Your task to perform on an android device: delete the emails in spam in the gmail app Image 0: 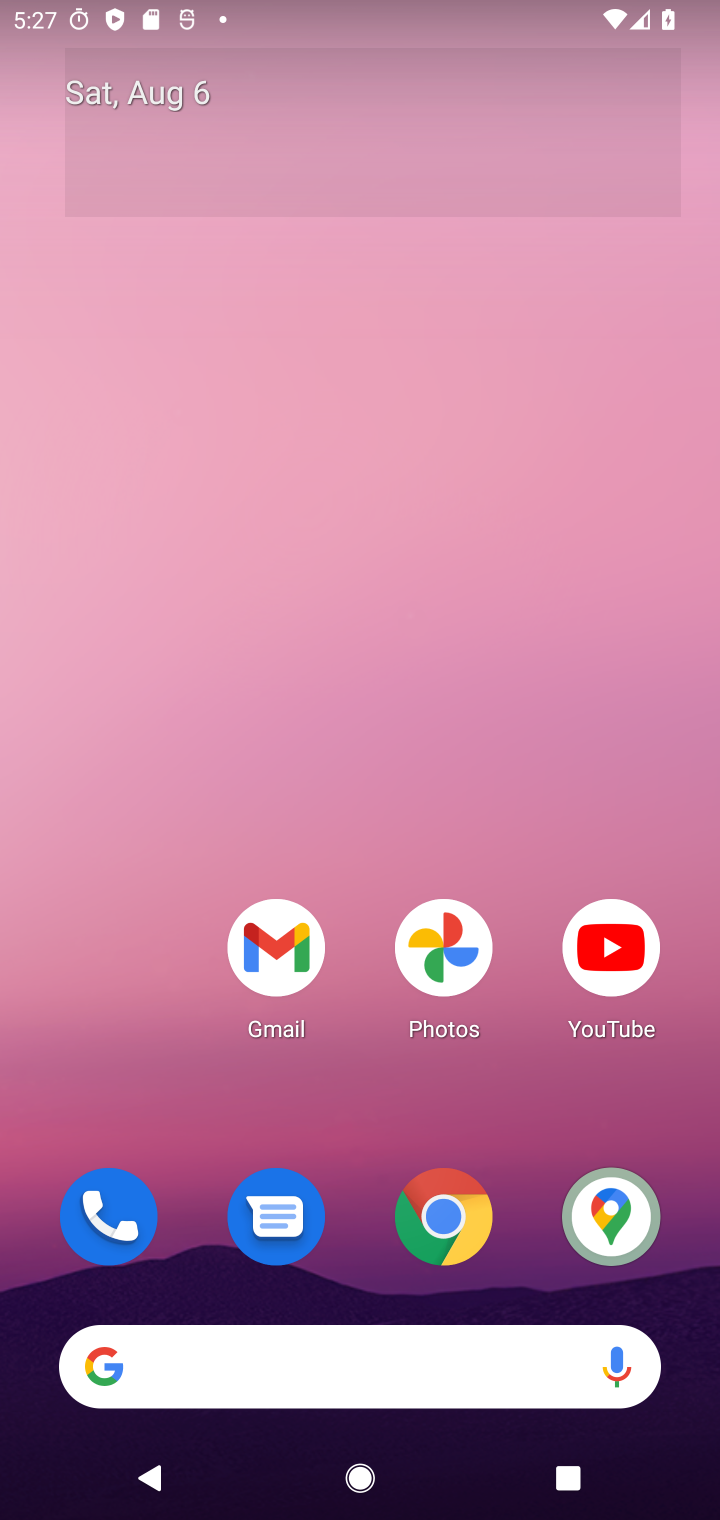
Step 0: press home button
Your task to perform on an android device: delete the emails in spam in the gmail app Image 1: 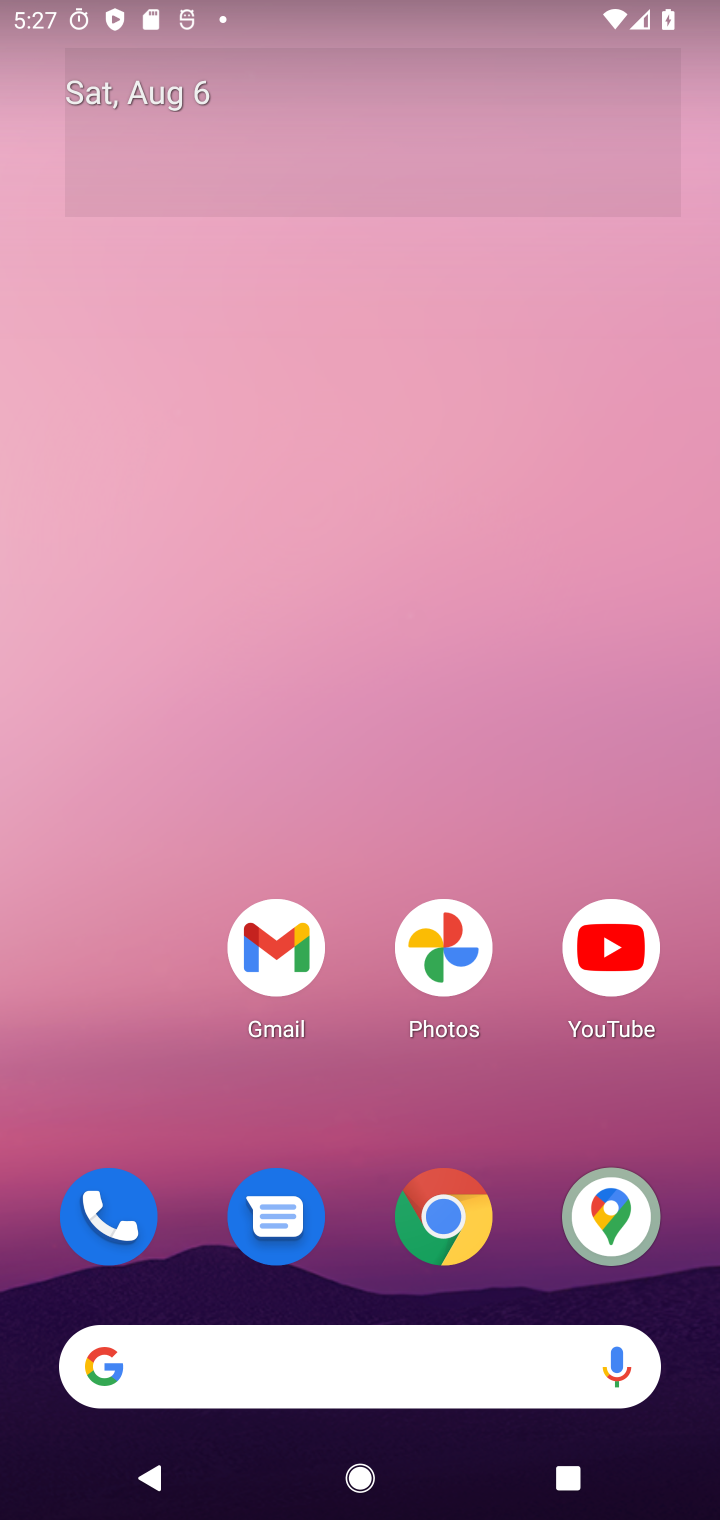
Step 1: click (507, 354)
Your task to perform on an android device: delete the emails in spam in the gmail app Image 2: 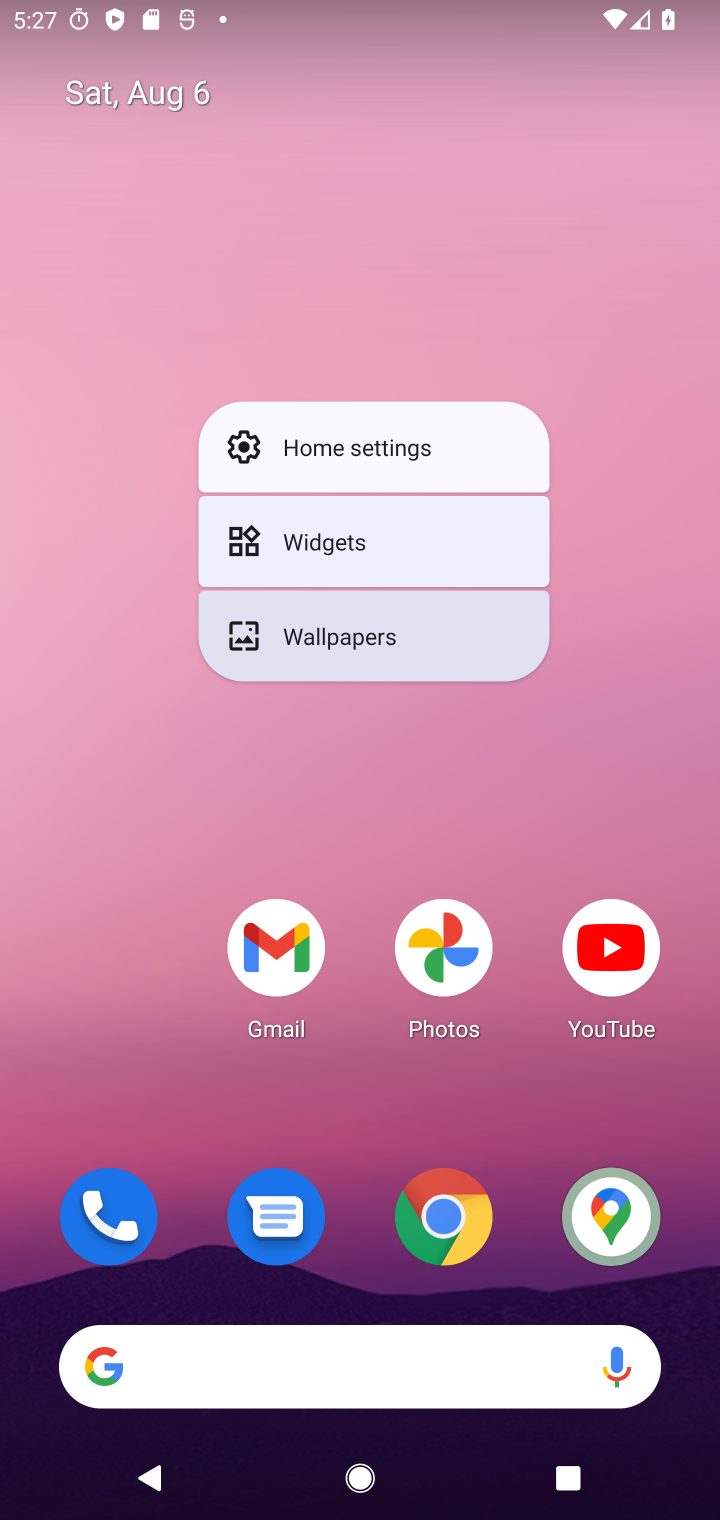
Step 2: click (625, 562)
Your task to perform on an android device: delete the emails in spam in the gmail app Image 3: 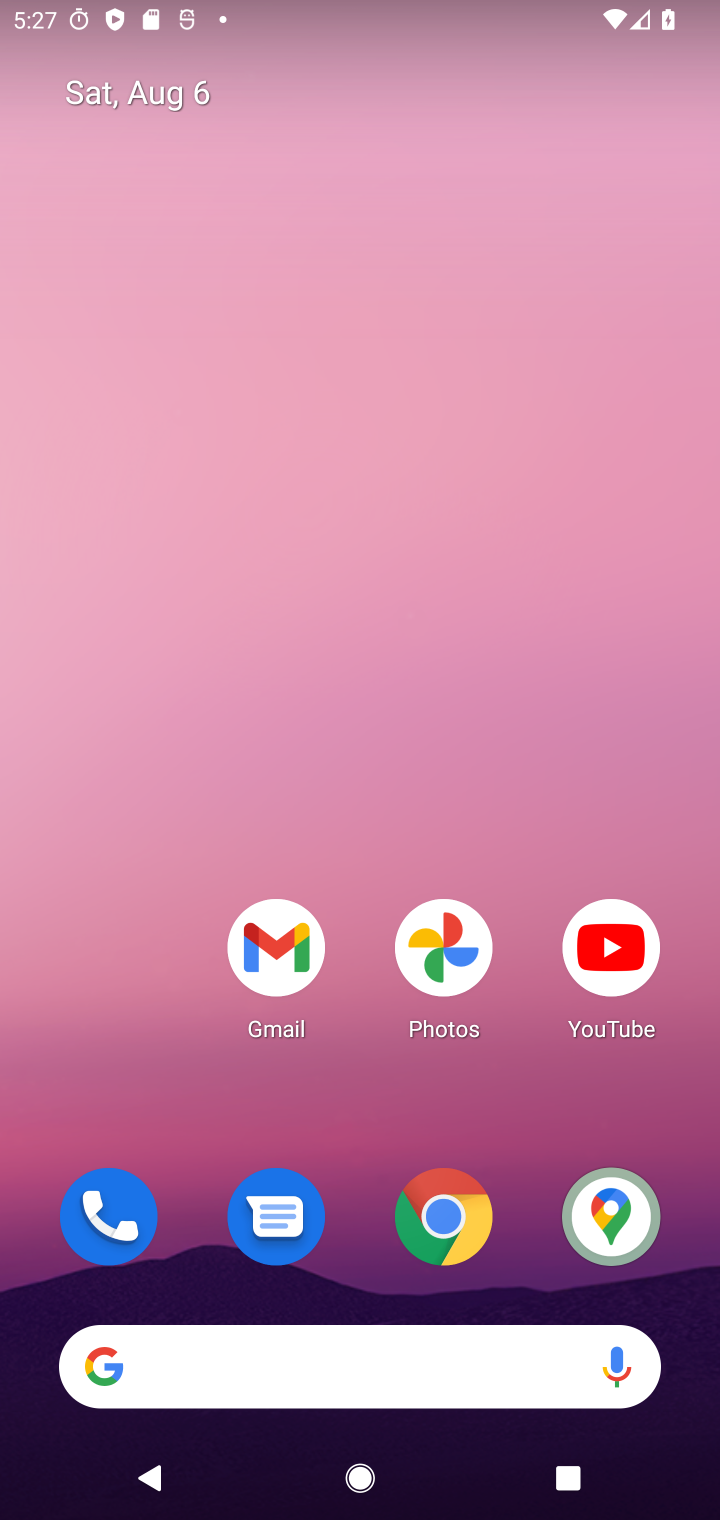
Step 3: drag from (363, 1276) to (402, 432)
Your task to perform on an android device: delete the emails in spam in the gmail app Image 4: 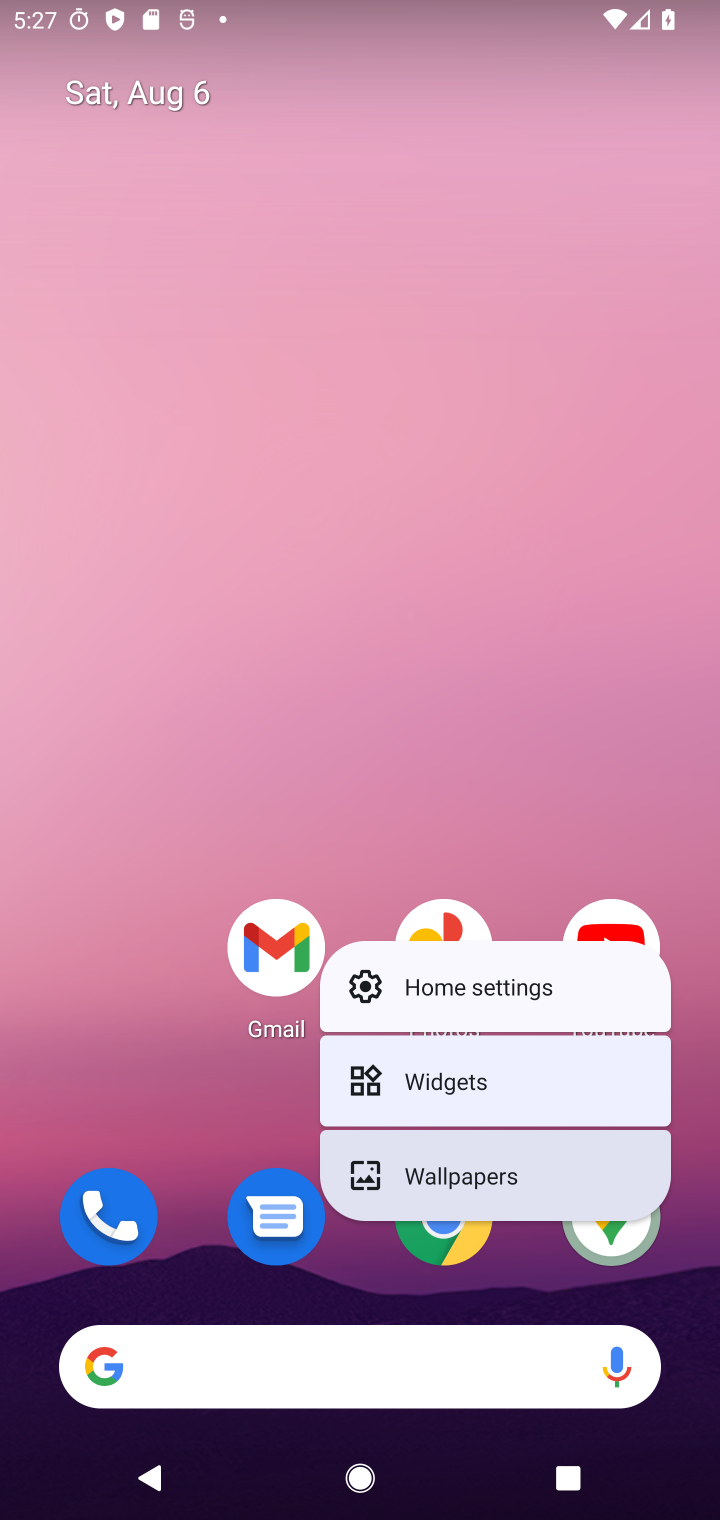
Step 4: click (420, 511)
Your task to perform on an android device: delete the emails in spam in the gmail app Image 5: 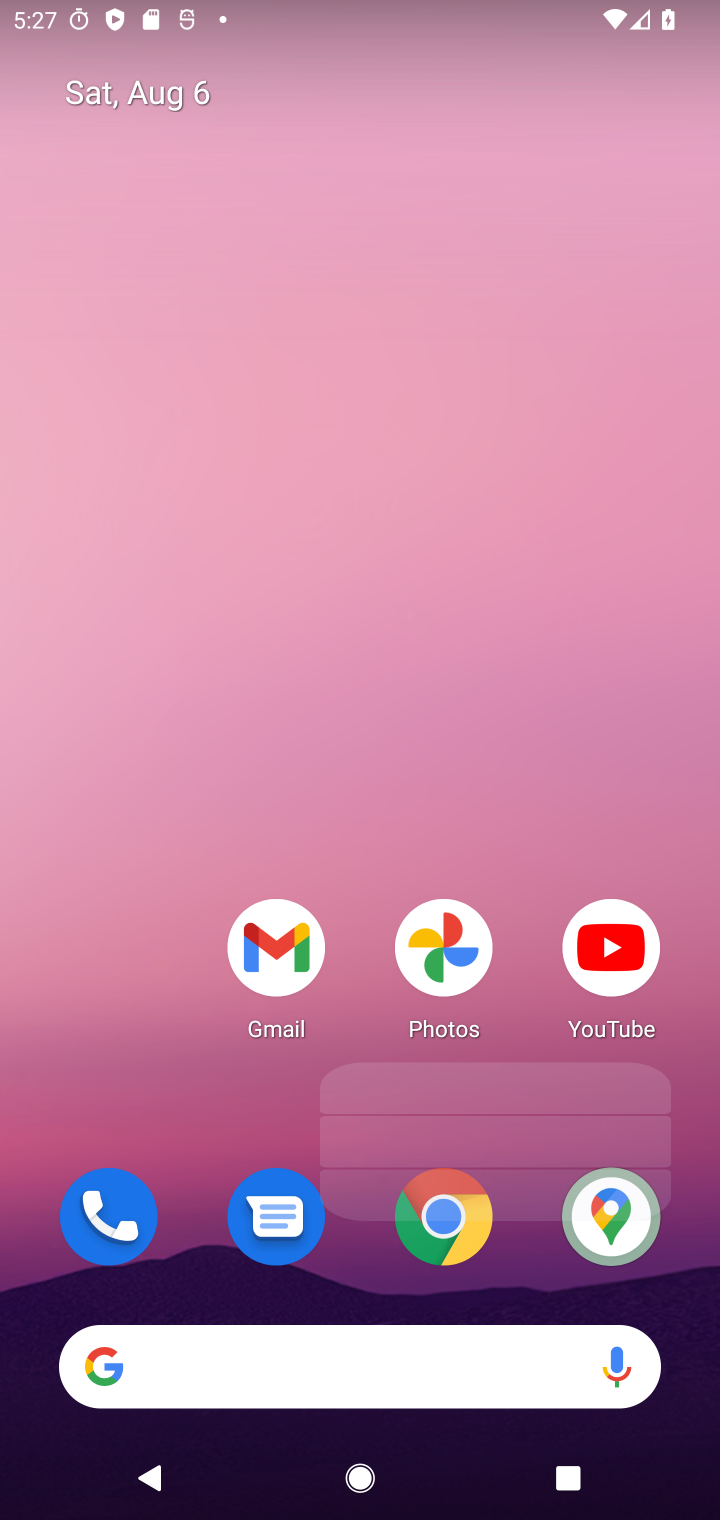
Step 5: click (157, 1041)
Your task to perform on an android device: delete the emails in spam in the gmail app Image 6: 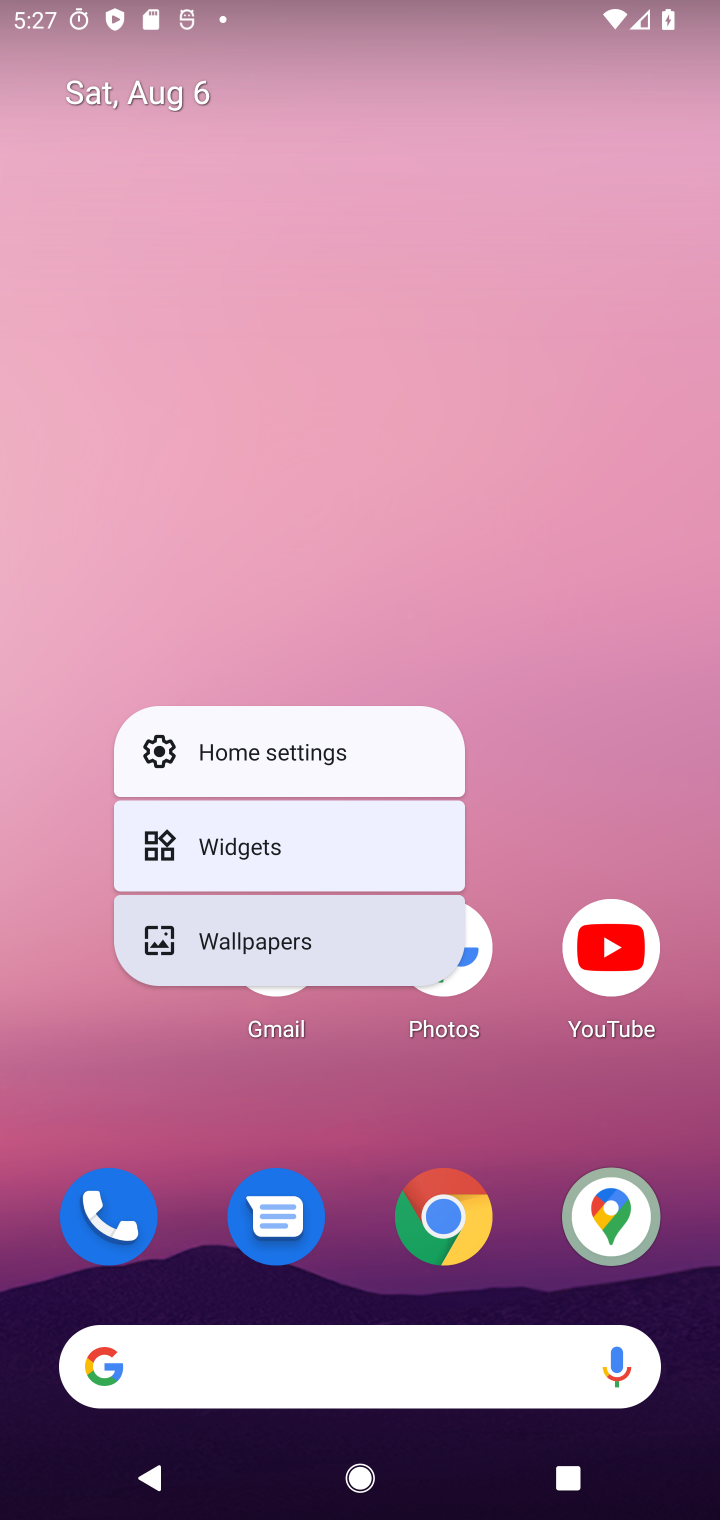
Step 6: drag from (359, 1281) to (412, 374)
Your task to perform on an android device: delete the emails in spam in the gmail app Image 7: 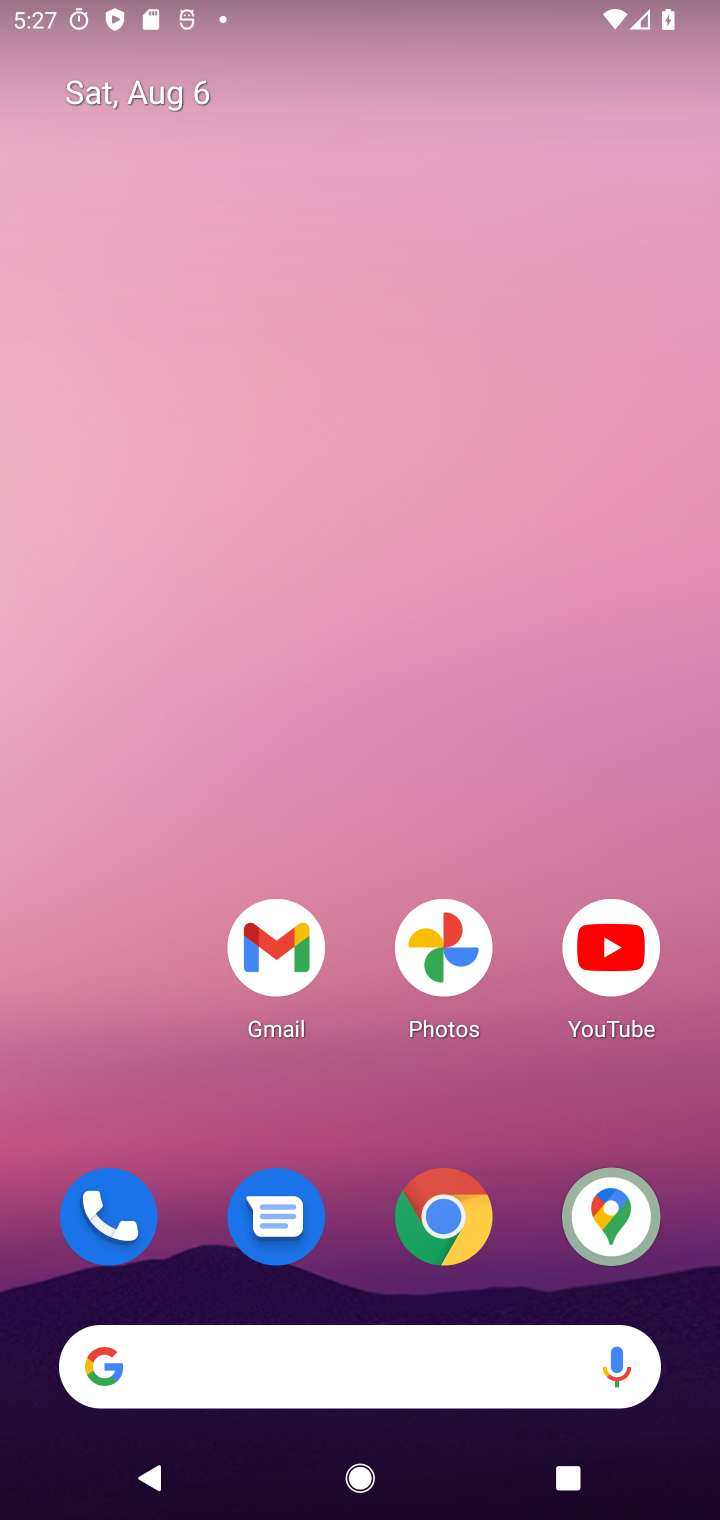
Step 7: click (425, 490)
Your task to perform on an android device: delete the emails in spam in the gmail app Image 8: 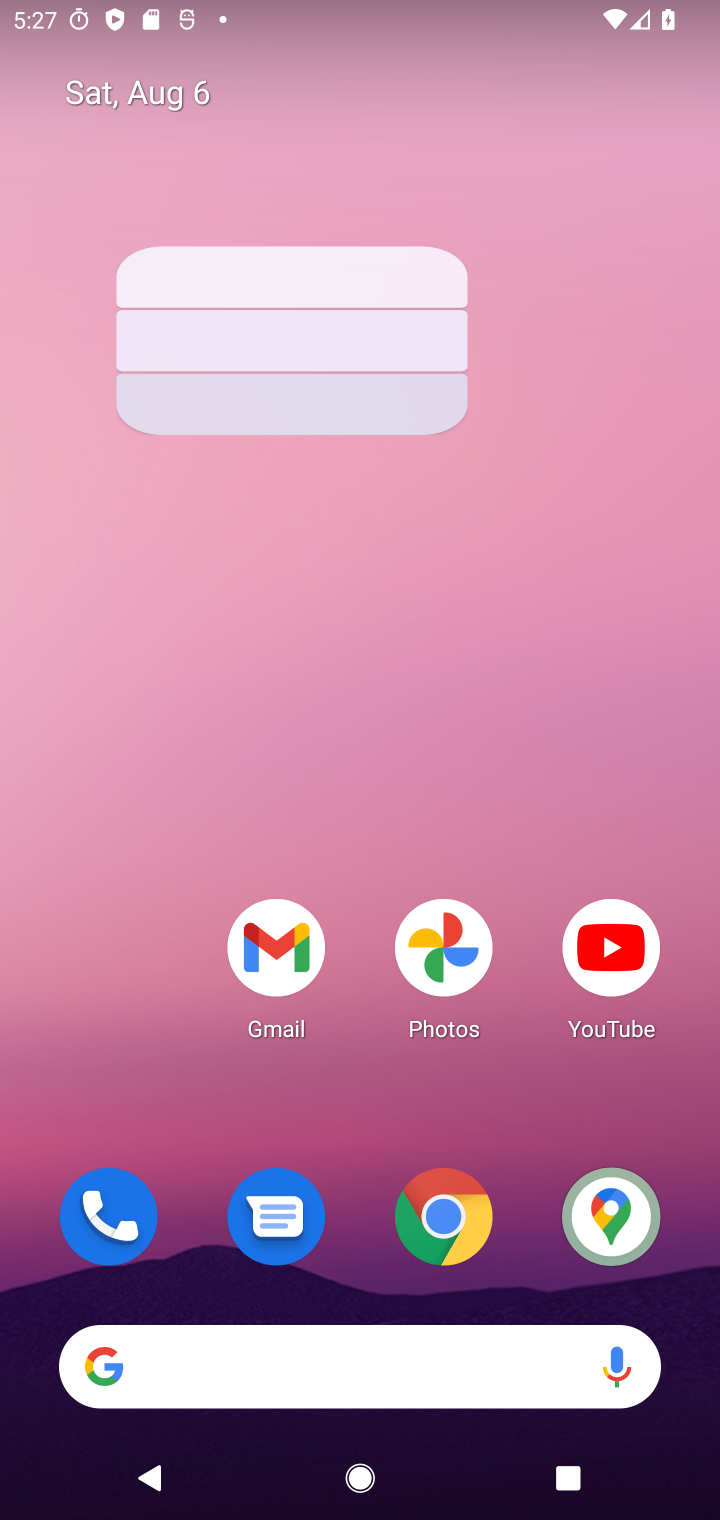
Step 8: drag from (369, 1111) to (400, 433)
Your task to perform on an android device: delete the emails in spam in the gmail app Image 9: 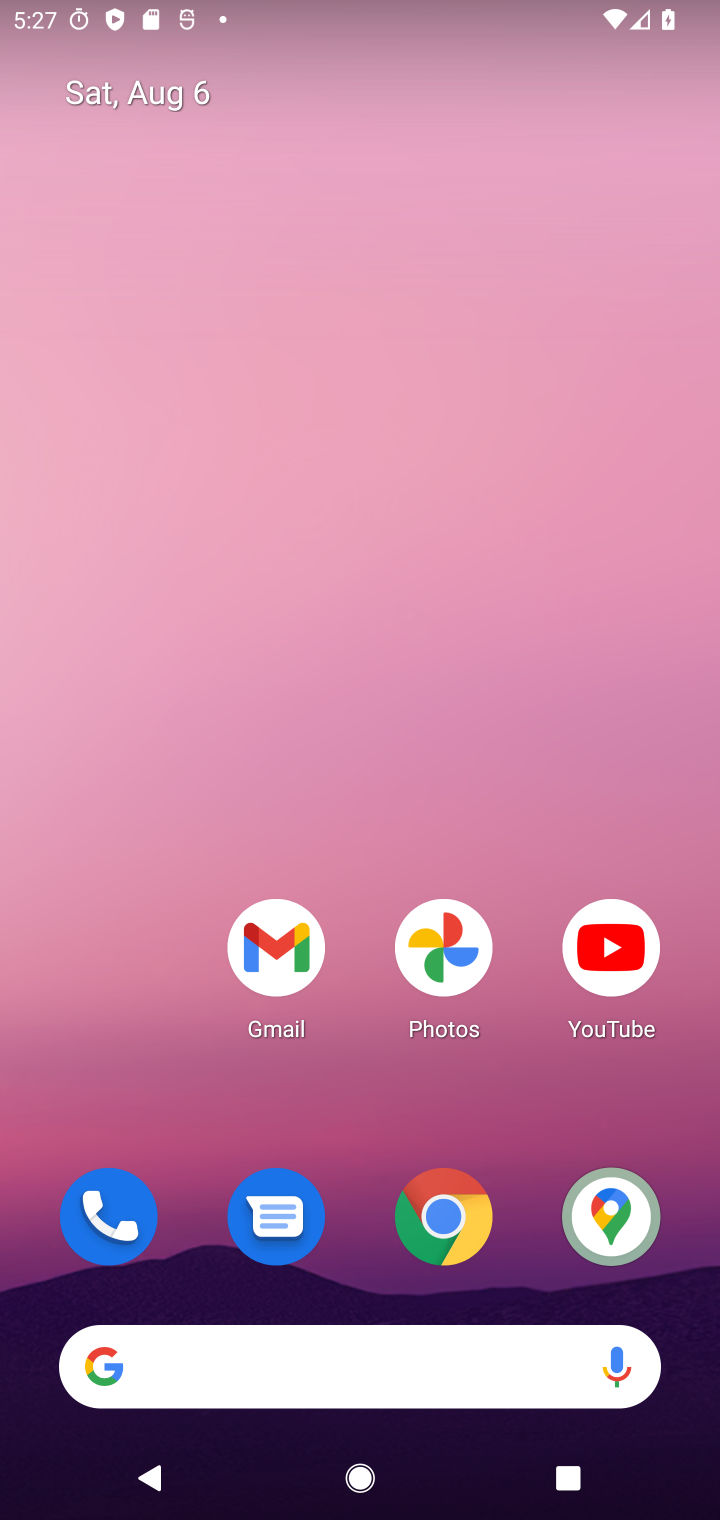
Step 9: click (371, 619)
Your task to perform on an android device: delete the emails in spam in the gmail app Image 10: 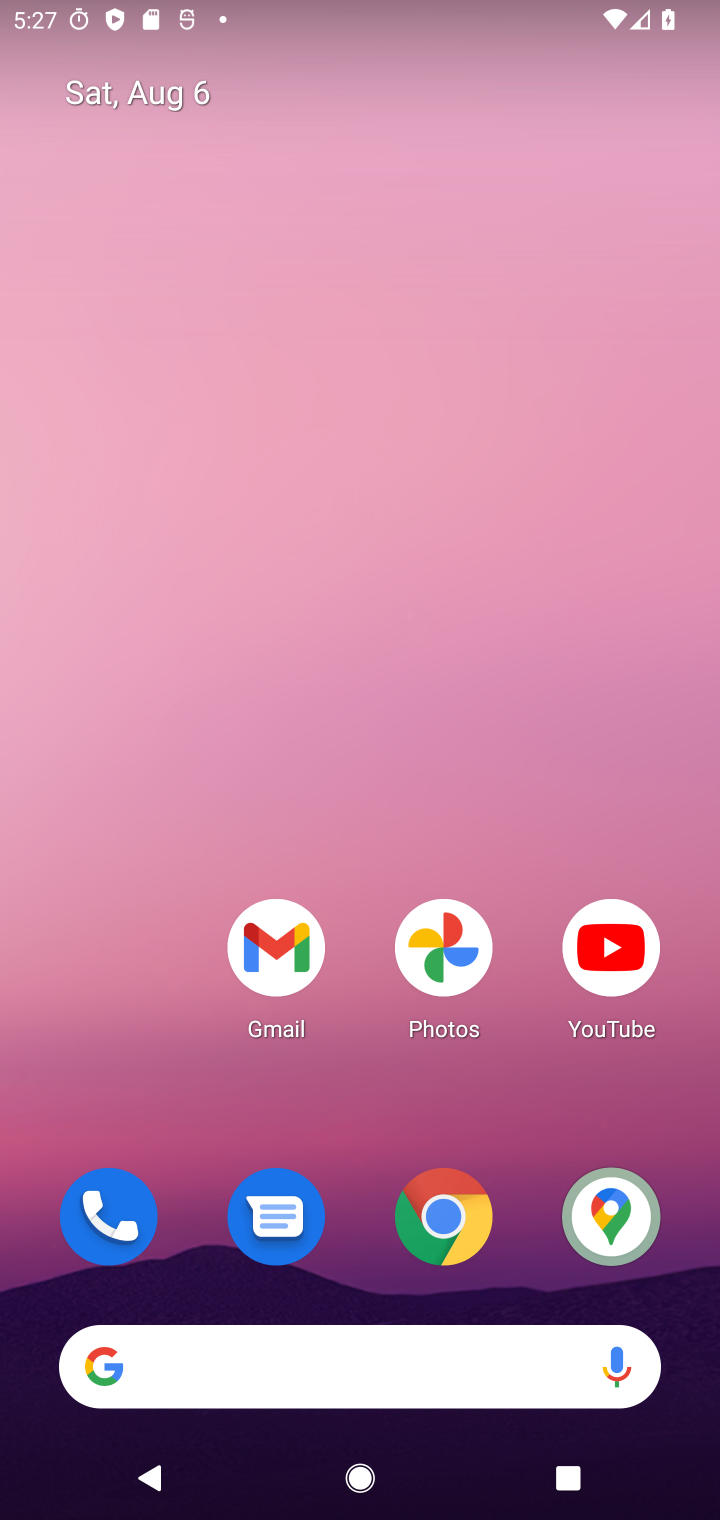
Step 10: drag from (353, 1121) to (402, 307)
Your task to perform on an android device: delete the emails in spam in the gmail app Image 11: 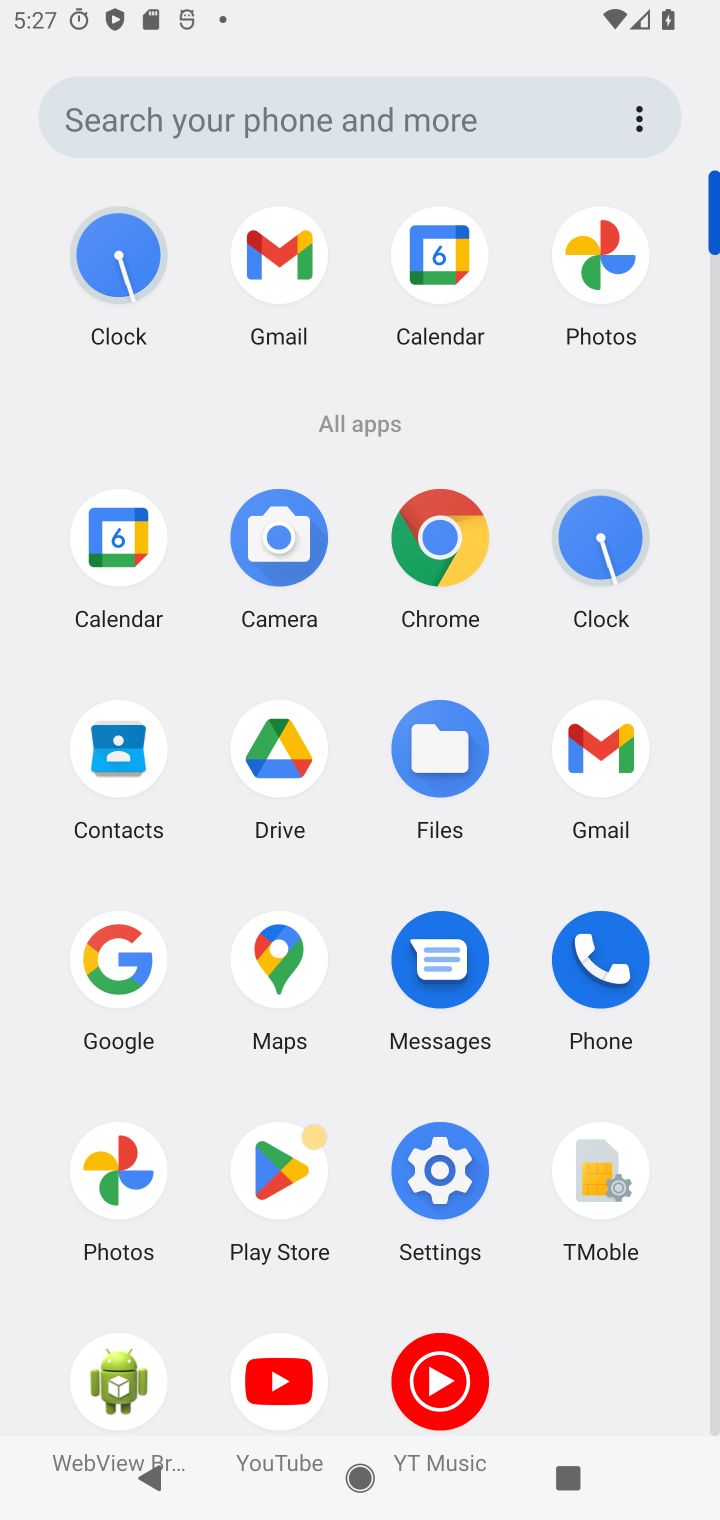
Step 11: click (617, 771)
Your task to perform on an android device: delete the emails in spam in the gmail app Image 12: 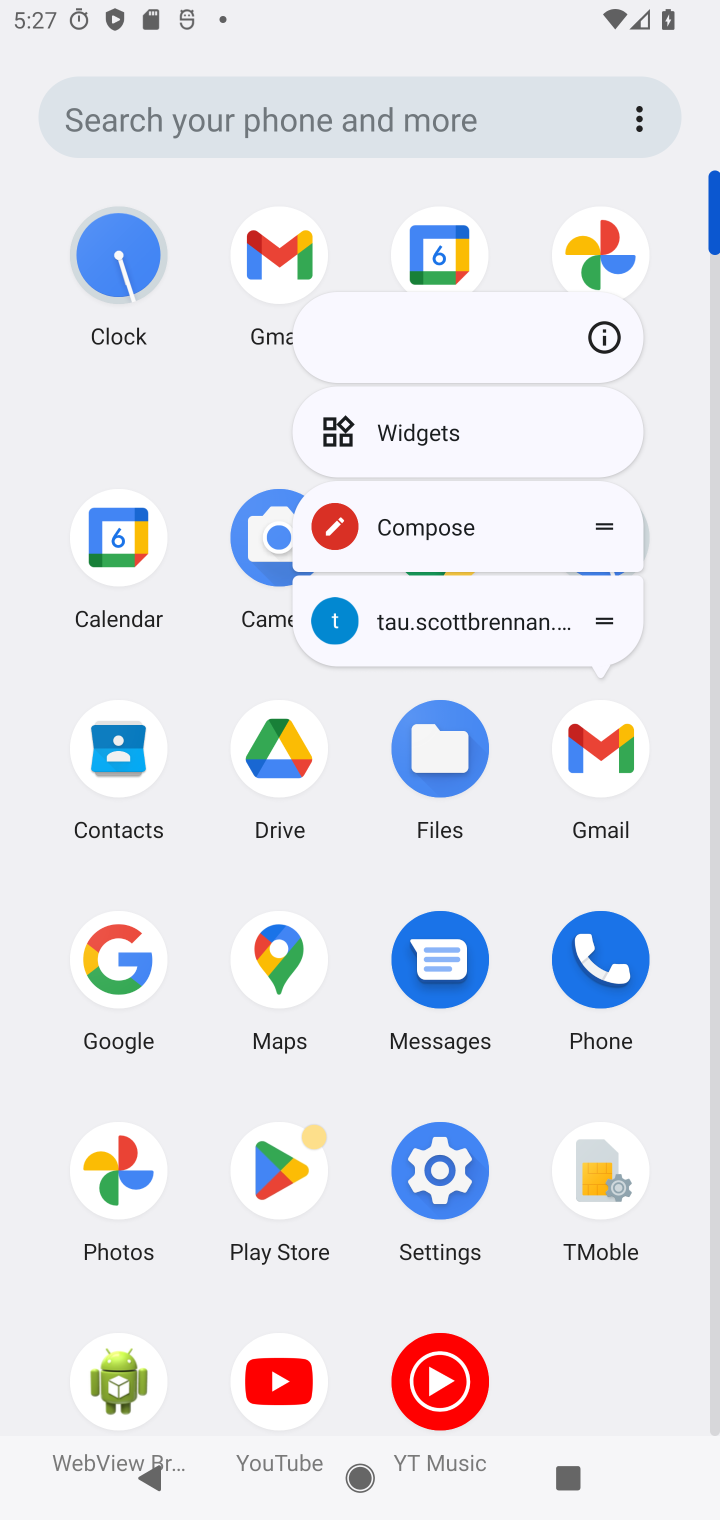
Step 12: click (619, 771)
Your task to perform on an android device: delete the emails in spam in the gmail app Image 13: 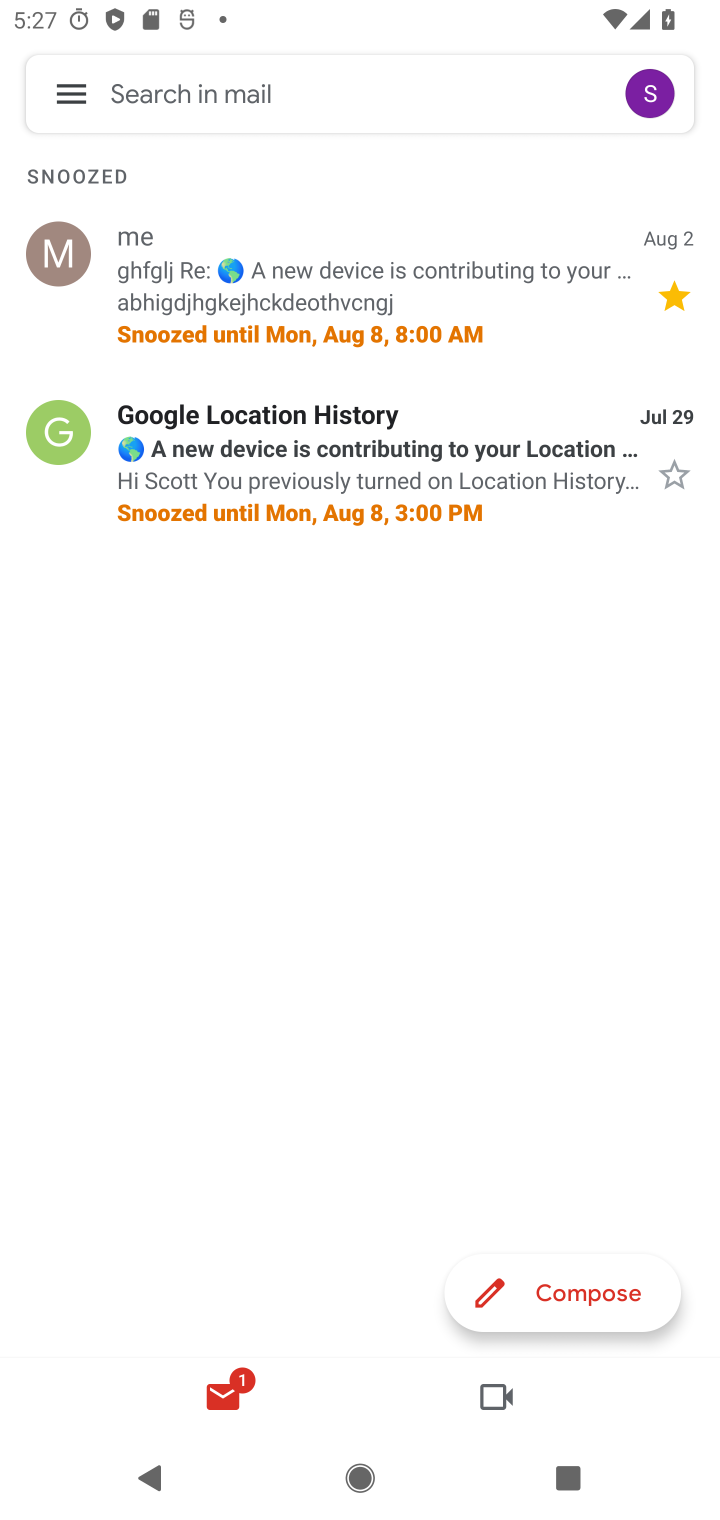
Step 13: click (67, 79)
Your task to perform on an android device: delete the emails in spam in the gmail app Image 14: 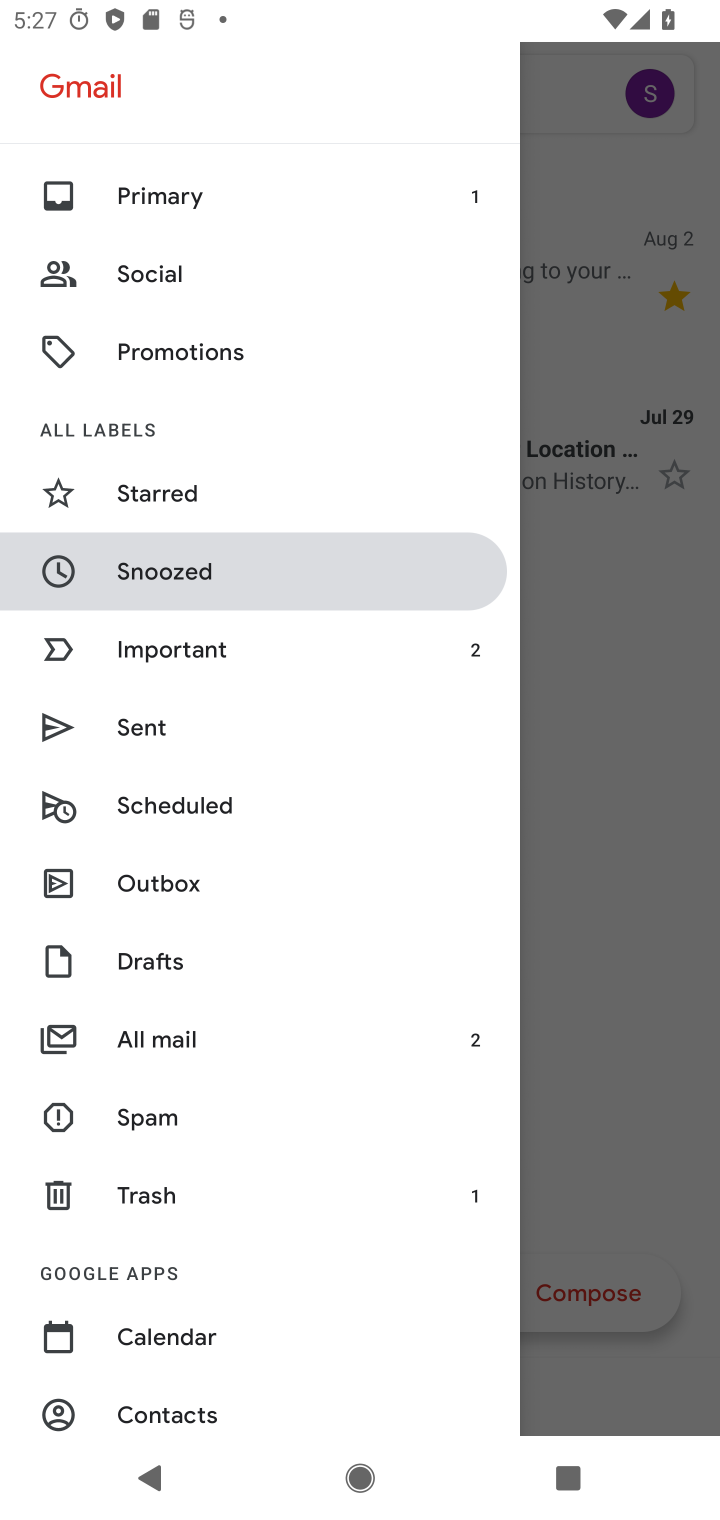
Step 14: click (165, 1129)
Your task to perform on an android device: delete the emails in spam in the gmail app Image 15: 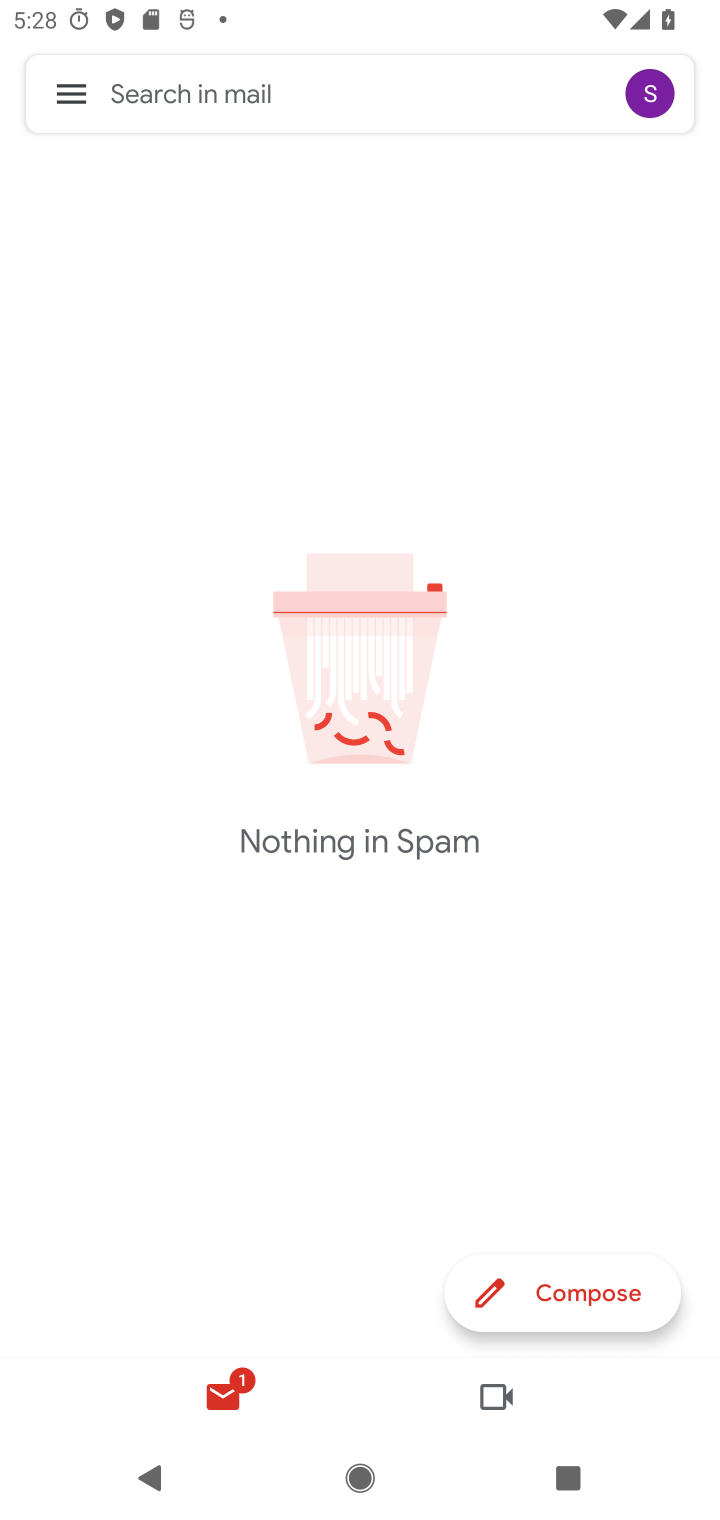
Step 15: task complete